Your task to perform on an android device: turn on location history Image 0: 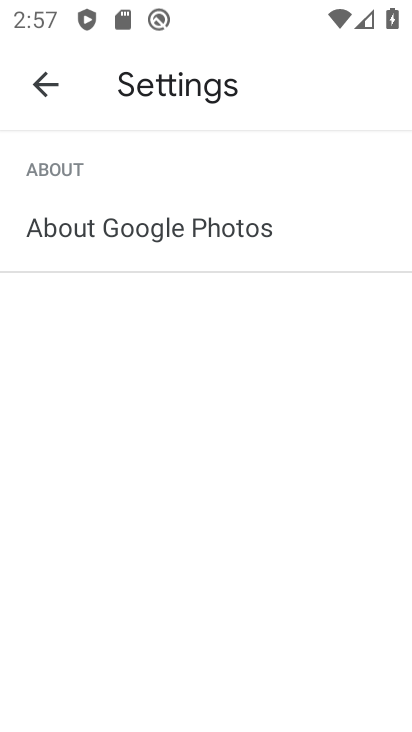
Step 0: press home button
Your task to perform on an android device: turn on location history Image 1: 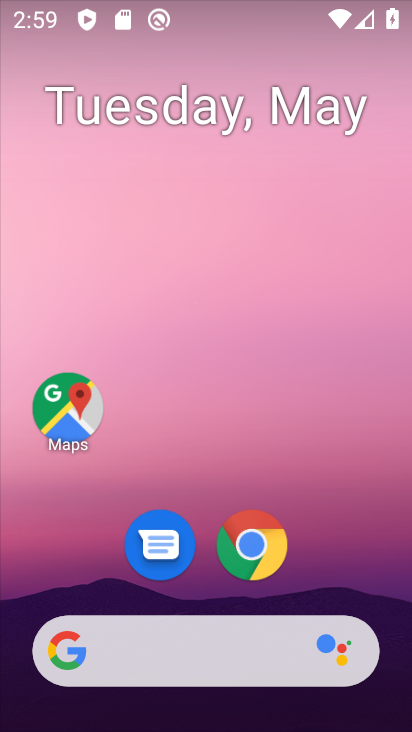
Step 1: drag from (214, 605) to (219, 261)
Your task to perform on an android device: turn on location history Image 2: 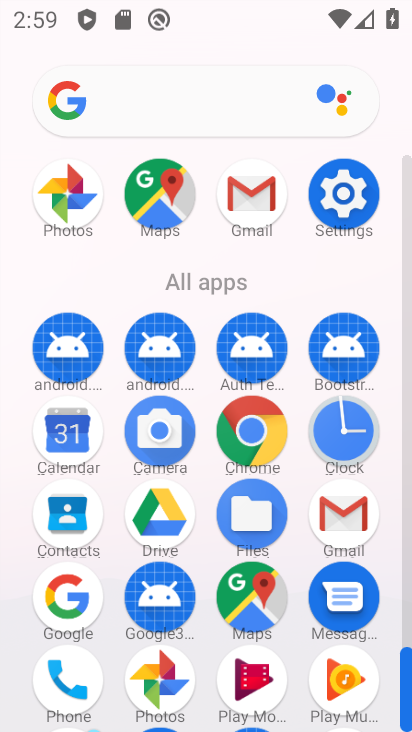
Step 2: click (346, 206)
Your task to perform on an android device: turn on location history Image 3: 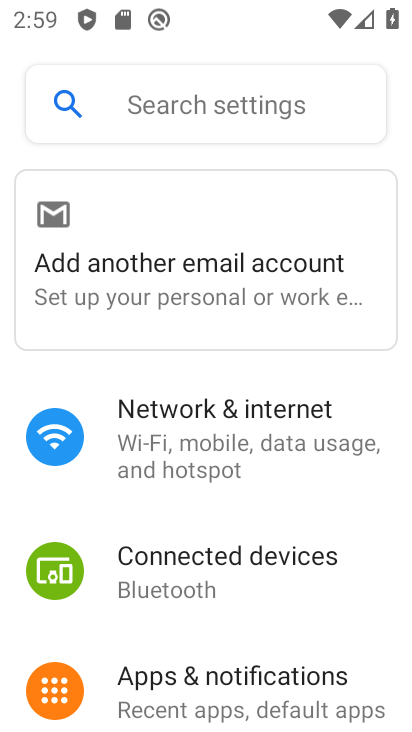
Step 3: drag from (157, 669) to (182, 289)
Your task to perform on an android device: turn on location history Image 4: 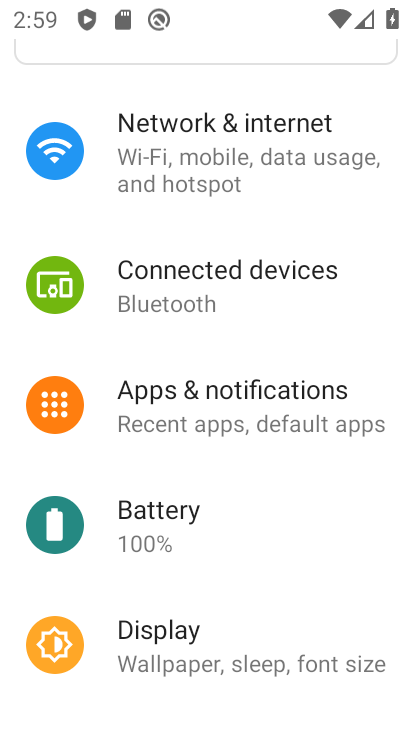
Step 4: drag from (165, 652) to (204, 356)
Your task to perform on an android device: turn on location history Image 5: 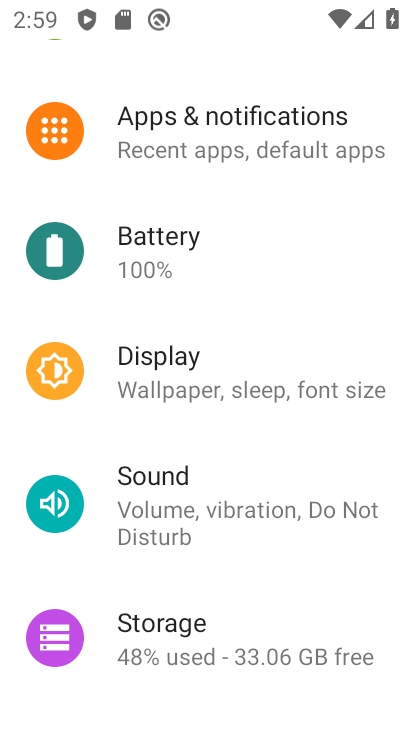
Step 5: drag from (218, 627) to (222, 323)
Your task to perform on an android device: turn on location history Image 6: 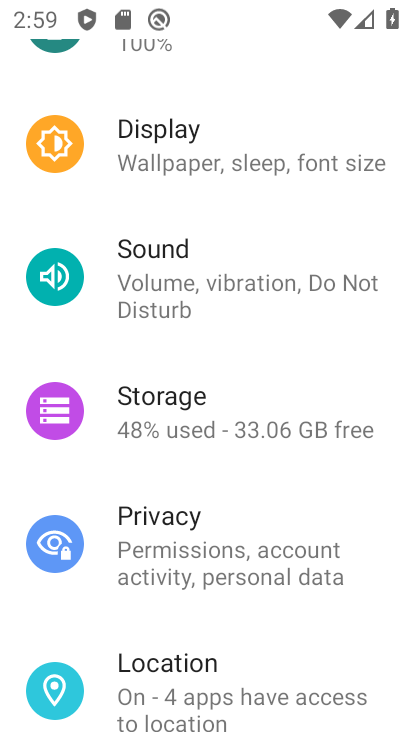
Step 6: click (184, 697)
Your task to perform on an android device: turn on location history Image 7: 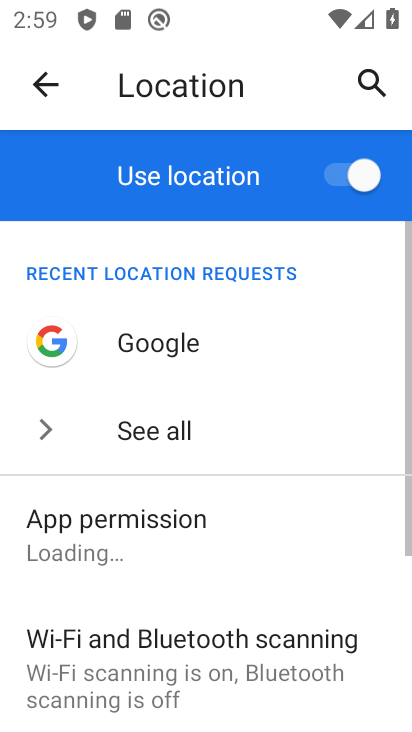
Step 7: drag from (197, 688) to (245, 304)
Your task to perform on an android device: turn on location history Image 8: 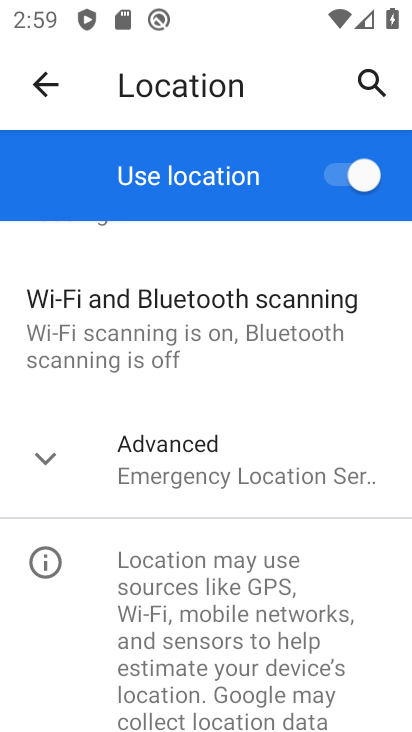
Step 8: click (233, 475)
Your task to perform on an android device: turn on location history Image 9: 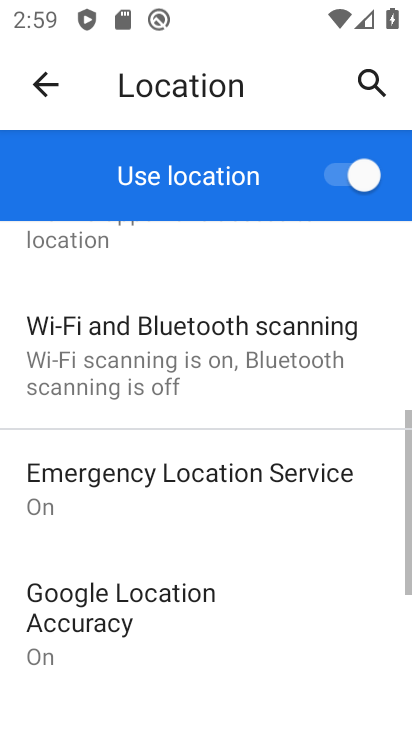
Step 9: drag from (202, 677) to (206, 388)
Your task to perform on an android device: turn on location history Image 10: 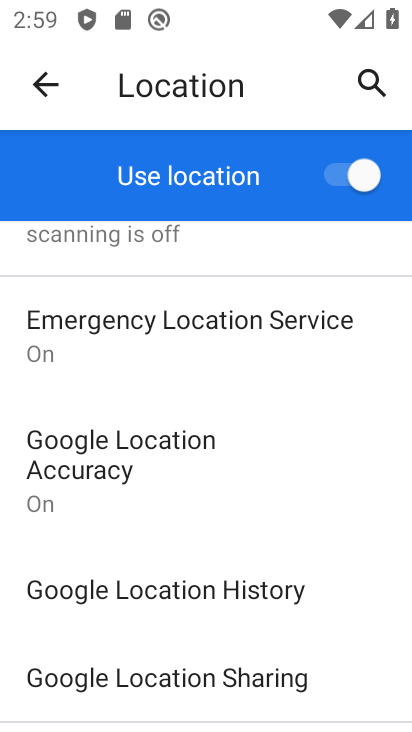
Step 10: click (183, 588)
Your task to perform on an android device: turn on location history Image 11: 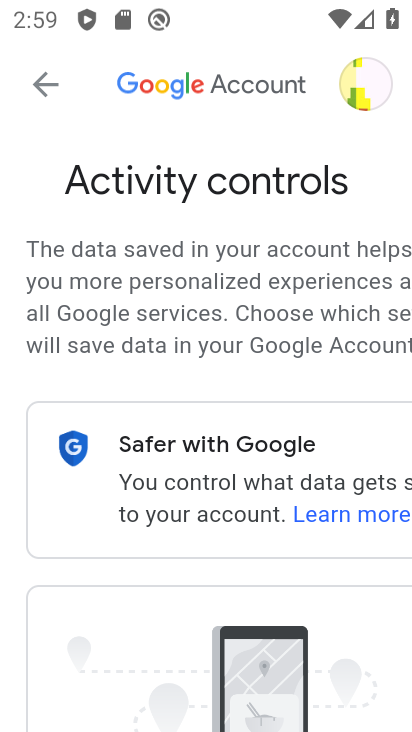
Step 11: drag from (307, 652) to (310, 346)
Your task to perform on an android device: turn on location history Image 12: 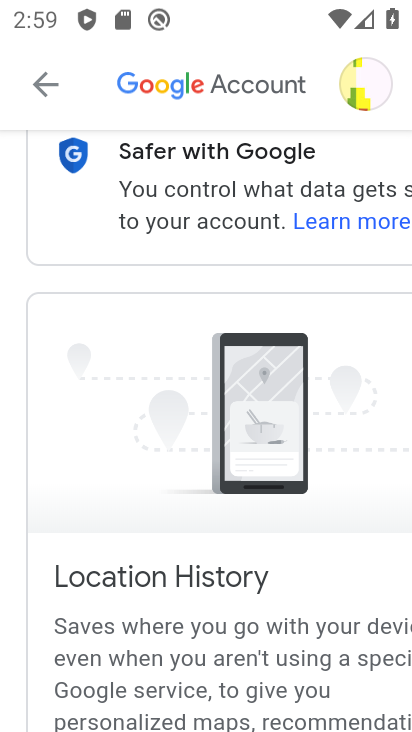
Step 12: drag from (340, 558) to (336, 306)
Your task to perform on an android device: turn on location history Image 13: 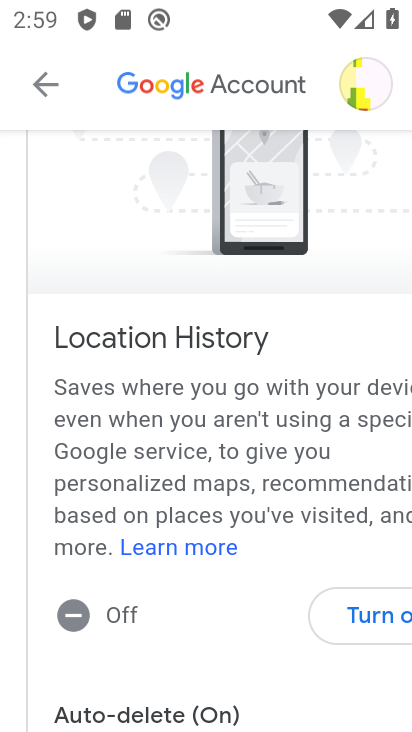
Step 13: click (371, 616)
Your task to perform on an android device: turn on location history Image 14: 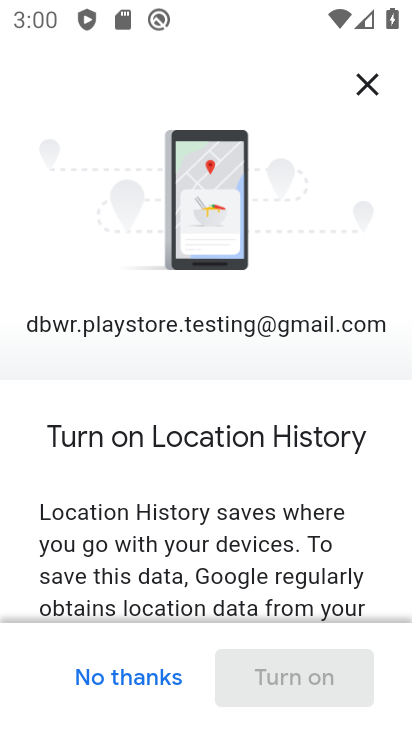
Step 14: drag from (311, 597) to (301, 254)
Your task to perform on an android device: turn on location history Image 15: 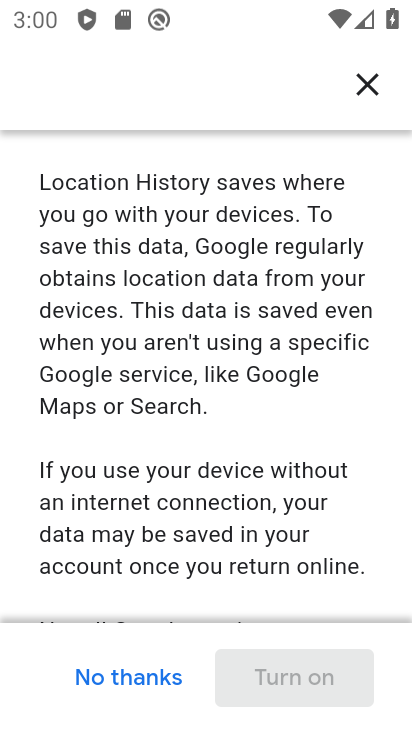
Step 15: drag from (283, 553) to (290, 254)
Your task to perform on an android device: turn on location history Image 16: 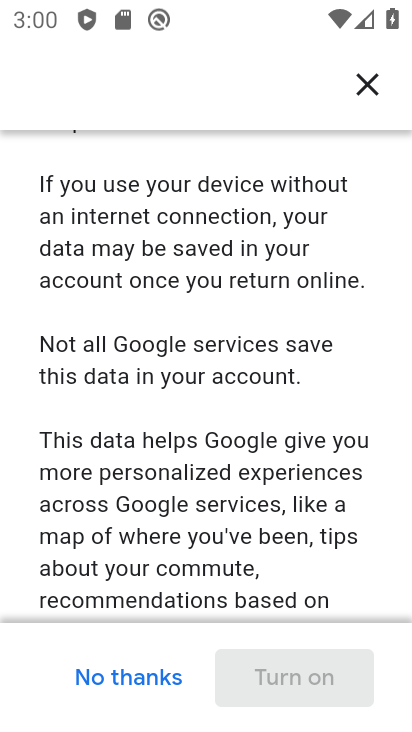
Step 16: drag from (321, 588) to (337, 266)
Your task to perform on an android device: turn on location history Image 17: 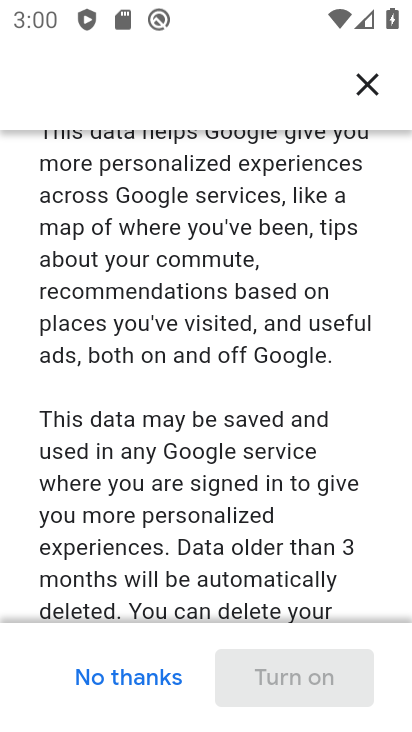
Step 17: drag from (310, 577) to (303, 228)
Your task to perform on an android device: turn on location history Image 18: 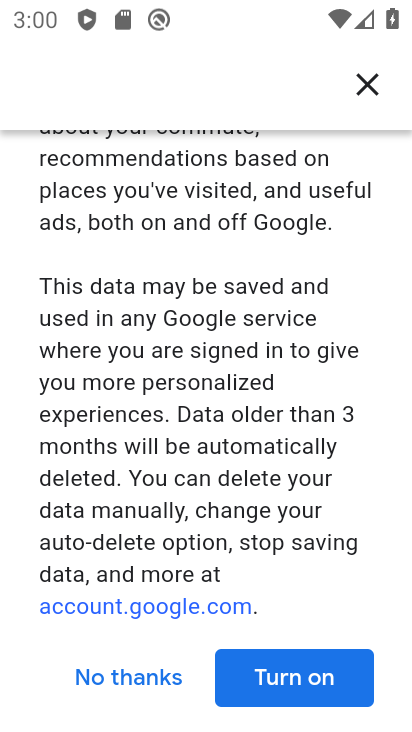
Step 18: click (314, 676)
Your task to perform on an android device: turn on location history Image 19: 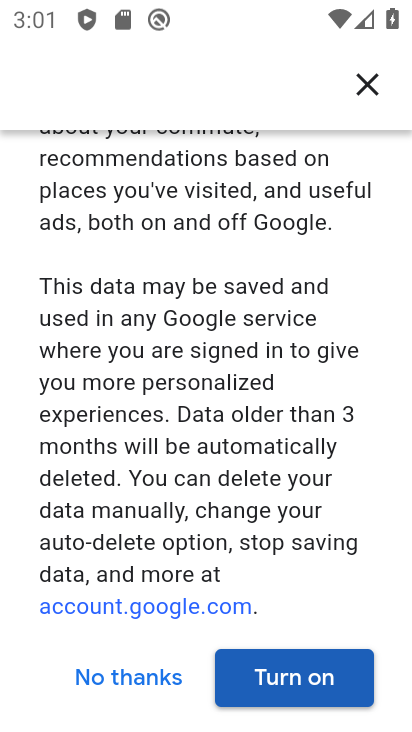
Step 19: click (323, 680)
Your task to perform on an android device: turn on location history Image 20: 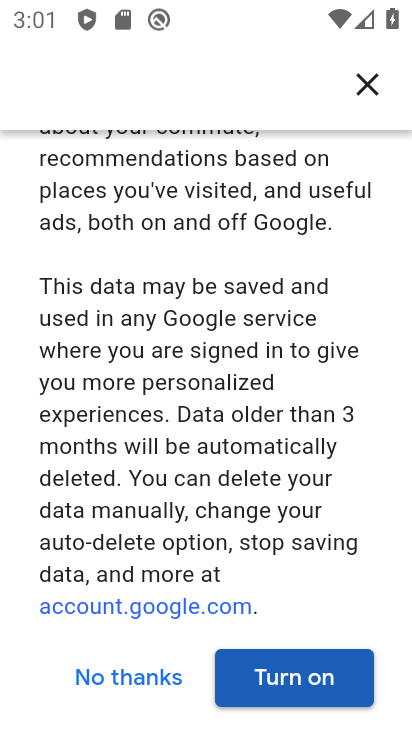
Step 20: drag from (298, 622) to (297, 362)
Your task to perform on an android device: turn on location history Image 21: 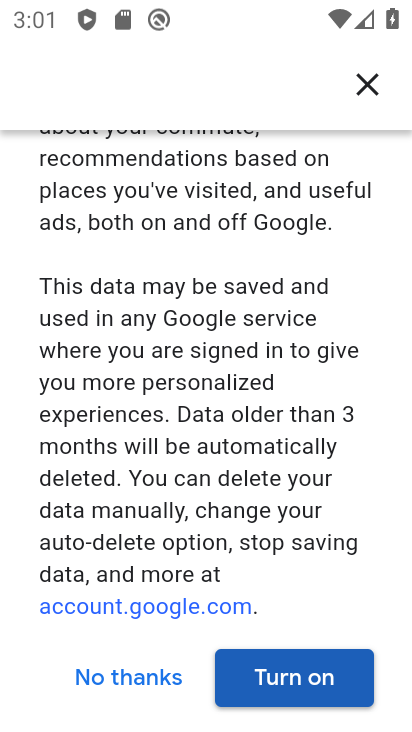
Step 21: click (311, 676)
Your task to perform on an android device: turn on location history Image 22: 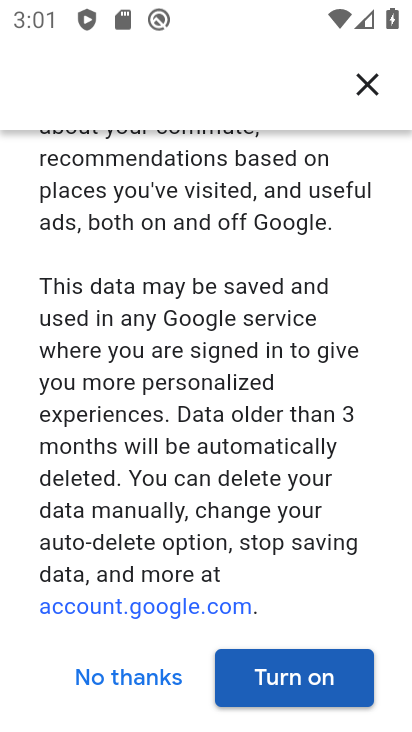
Step 22: click (296, 676)
Your task to perform on an android device: turn on location history Image 23: 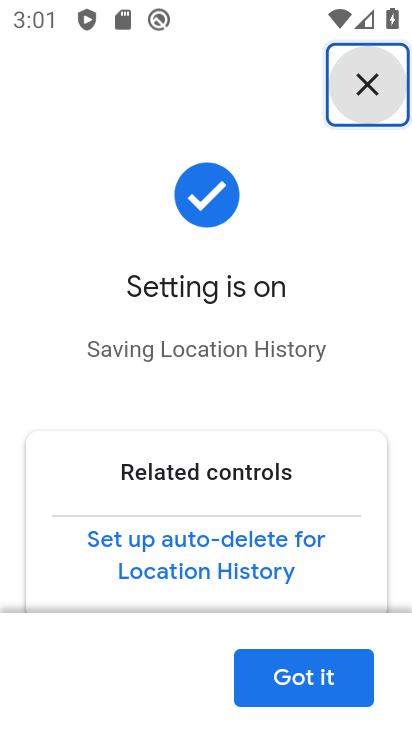
Step 23: task complete